Your task to perform on an android device: Open the Play Movies app and select the watchlist tab. Image 0: 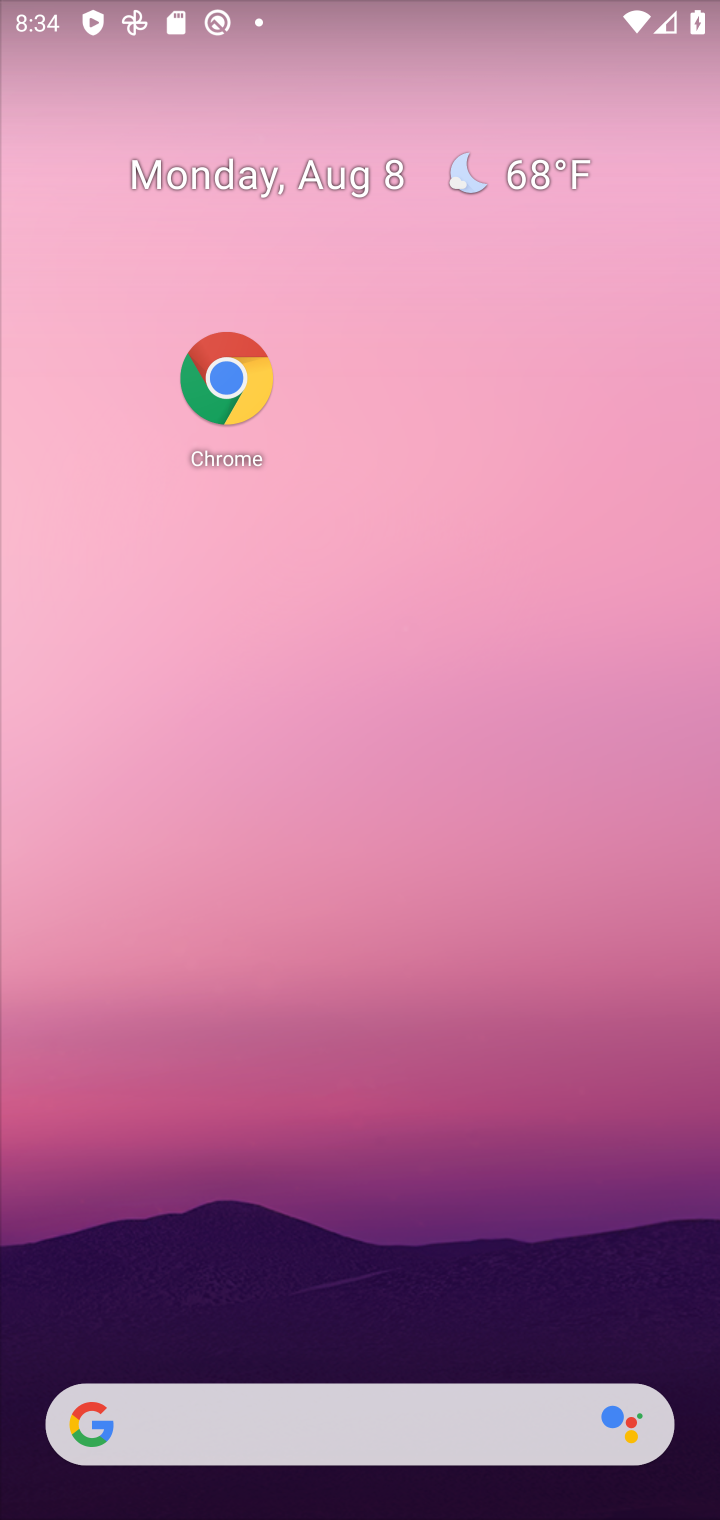
Step 0: drag from (409, 1156) to (569, 5)
Your task to perform on an android device: Open the Play Movies app and select the watchlist tab. Image 1: 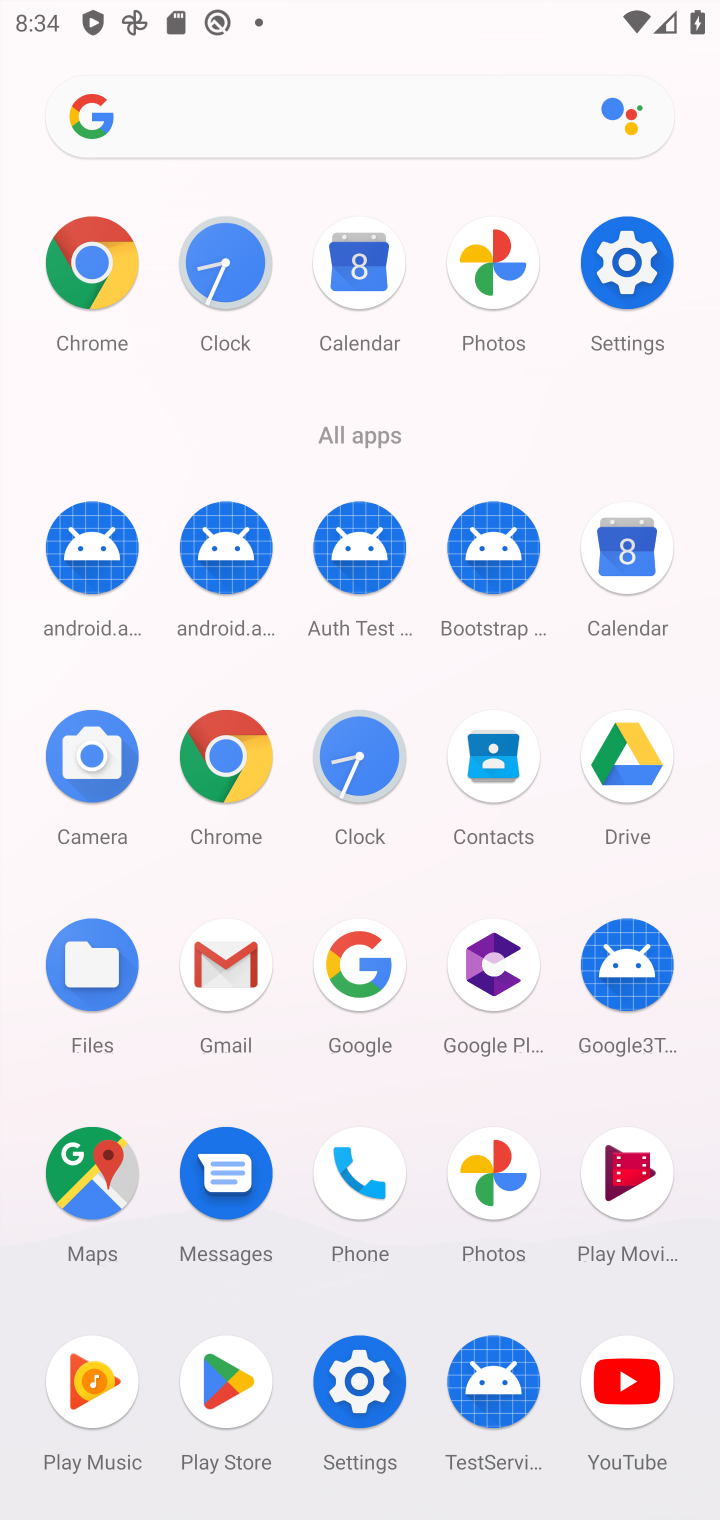
Step 1: click (646, 1200)
Your task to perform on an android device: Open the Play Movies app and select the watchlist tab. Image 2: 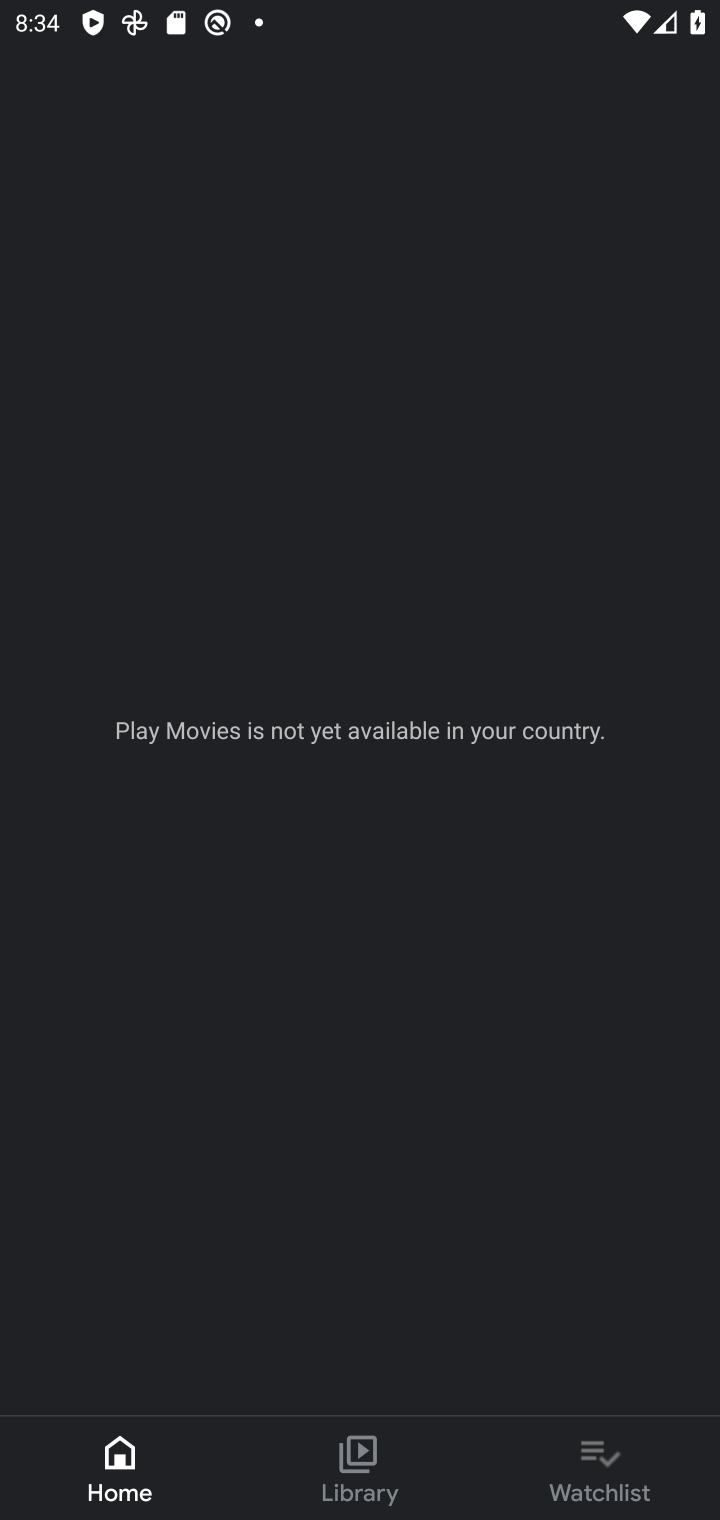
Step 2: click (585, 1473)
Your task to perform on an android device: Open the Play Movies app and select the watchlist tab. Image 3: 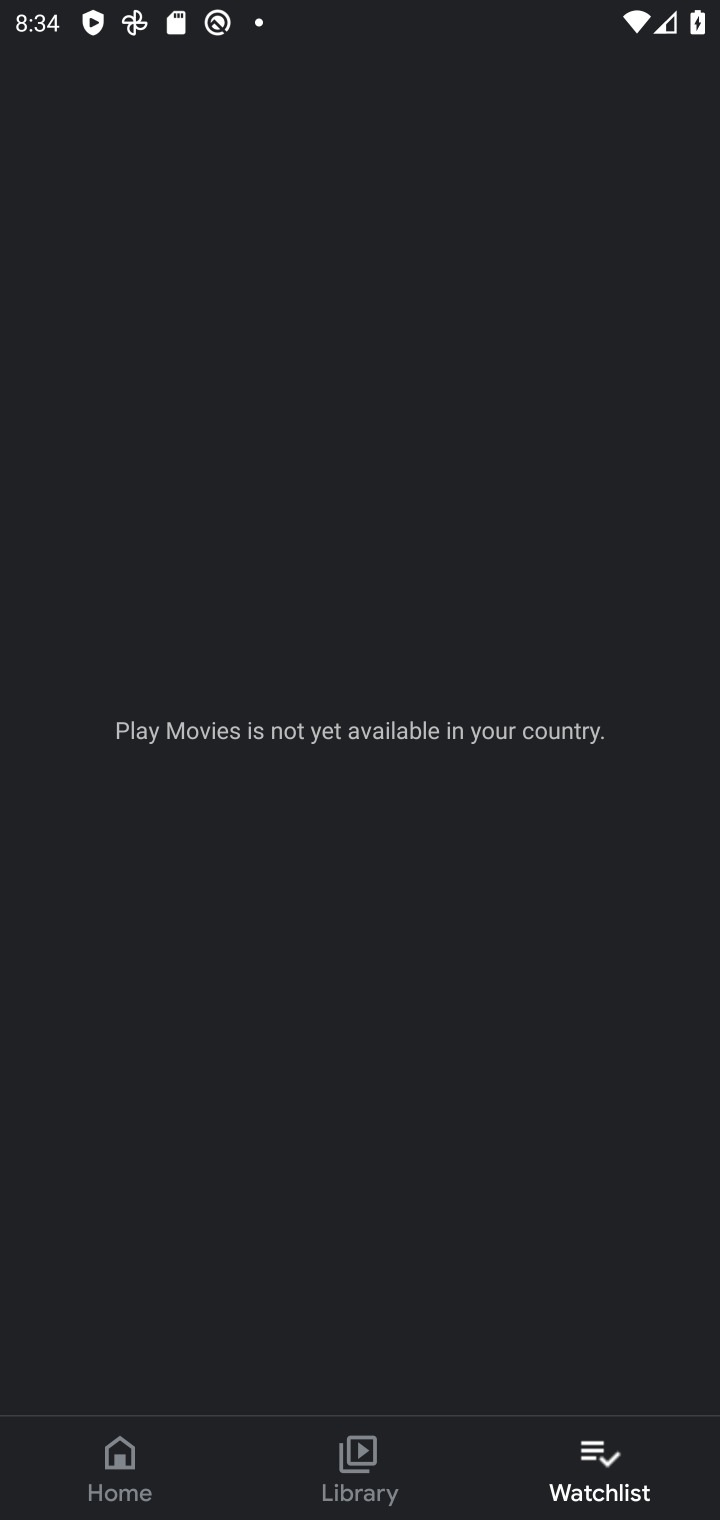
Step 3: task complete